Your task to perform on an android device: Open settings on Google Maps Image 0: 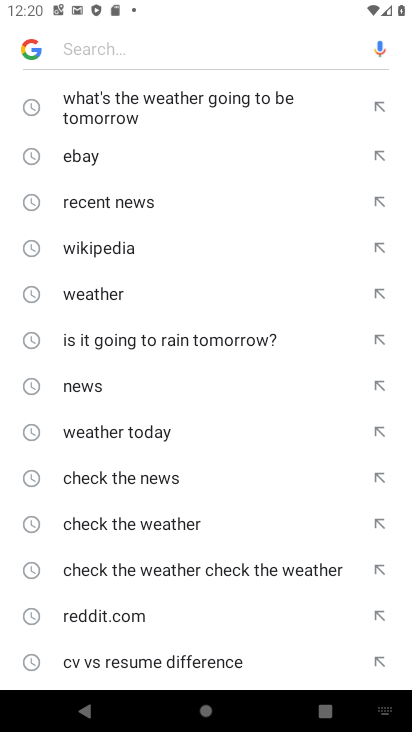
Step 0: press home button
Your task to perform on an android device: Open settings on Google Maps Image 1: 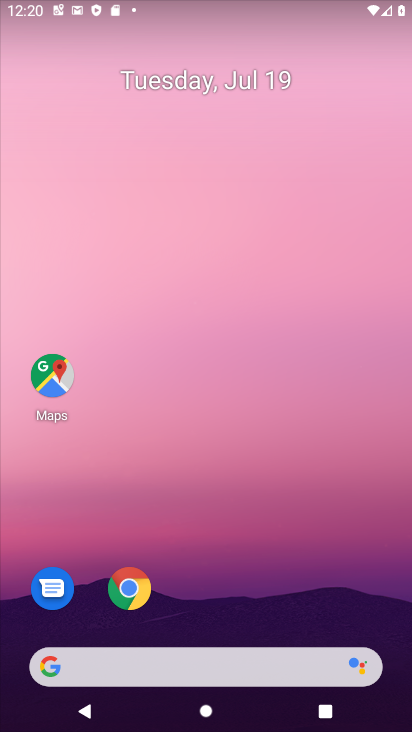
Step 1: drag from (355, 606) to (36, 0)
Your task to perform on an android device: Open settings on Google Maps Image 2: 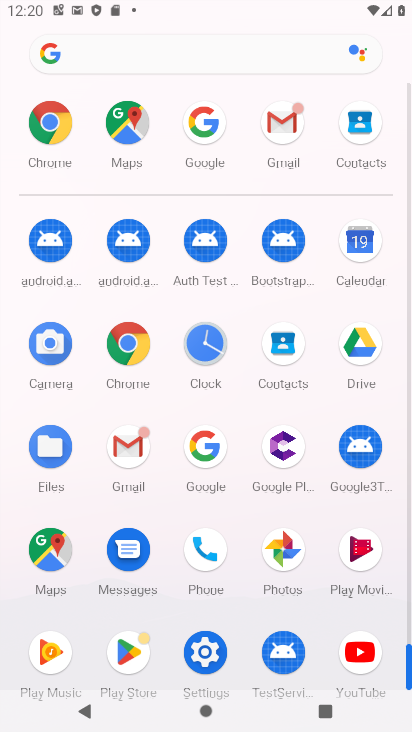
Step 2: click (120, 124)
Your task to perform on an android device: Open settings on Google Maps Image 3: 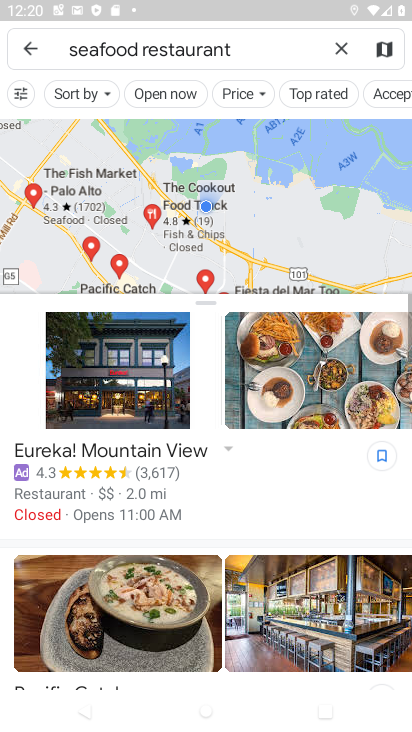
Step 3: click (340, 44)
Your task to perform on an android device: Open settings on Google Maps Image 4: 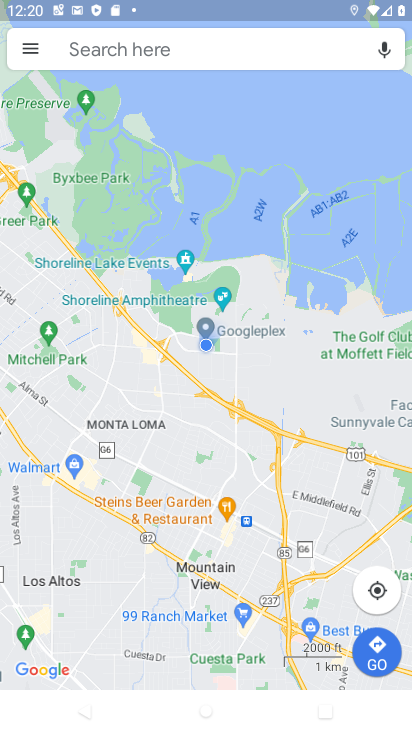
Step 4: click (33, 48)
Your task to perform on an android device: Open settings on Google Maps Image 5: 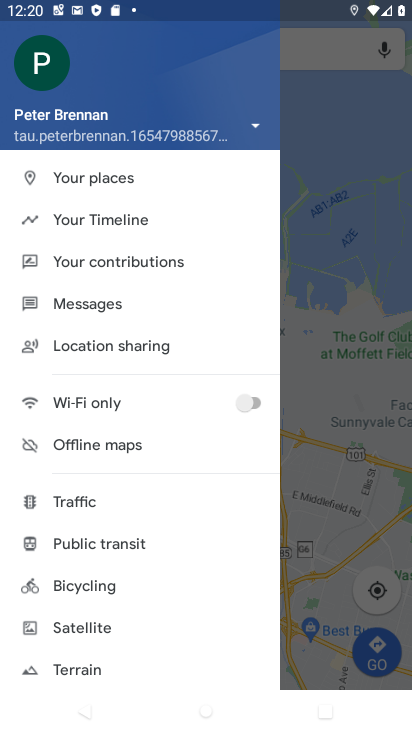
Step 5: drag from (168, 635) to (142, 69)
Your task to perform on an android device: Open settings on Google Maps Image 6: 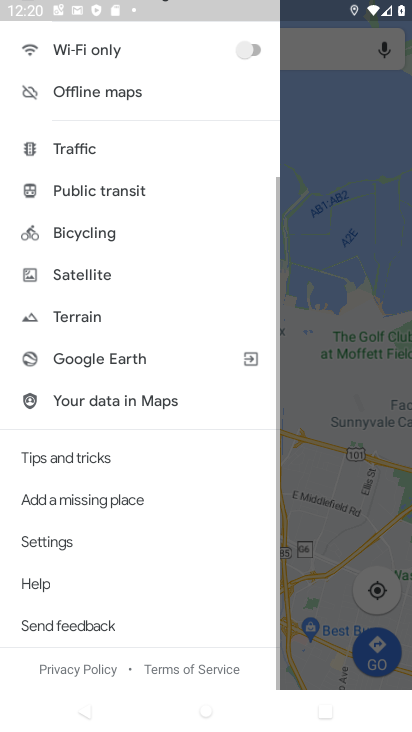
Step 6: click (50, 544)
Your task to perform on an android device: Open settings on Google Maps Image 7: 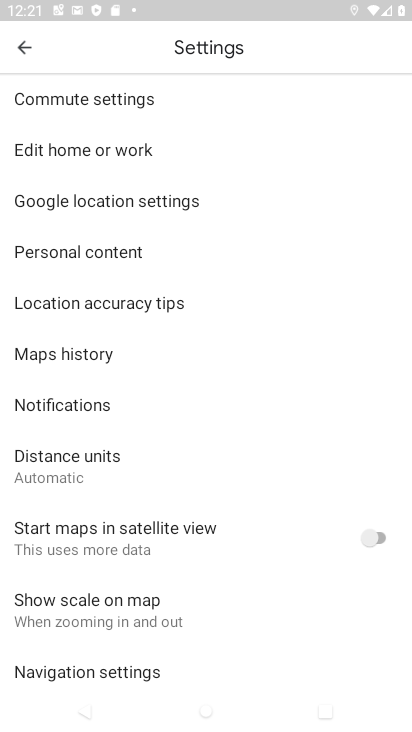
Step 7: task complete